Your task to perform on an android device: Open calendar and show me the fourth week of next month Image 0: 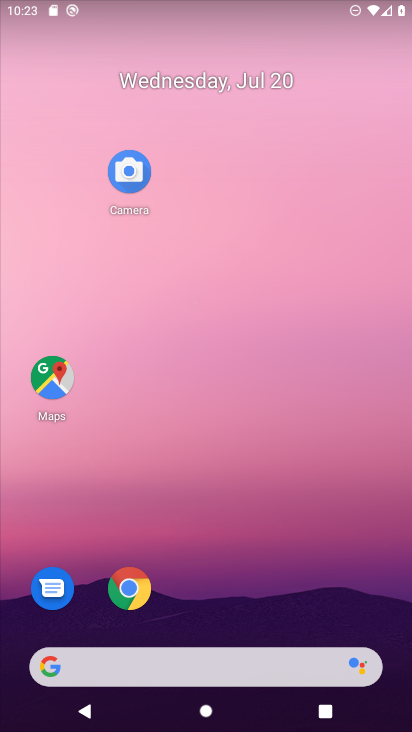
Step 0: press home button
Your task to perform on an android device: Open calendar and show me the fourth week of next month Image 1: 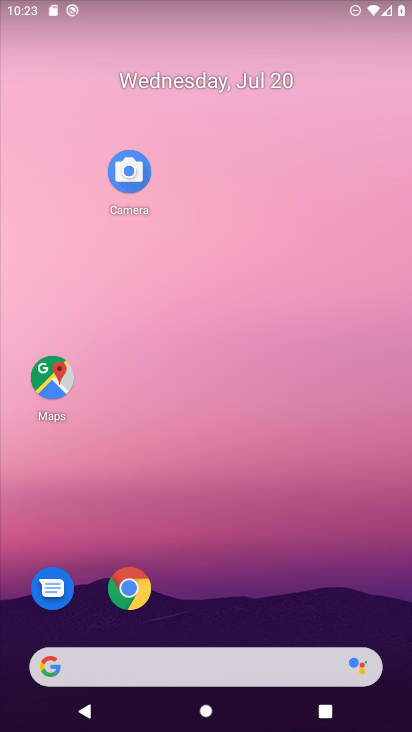
Step 1: drag from (303, 629) to (304, 155)
Your task to perform on an android device: Open calendar and show me the fourth week of next month Image 2: 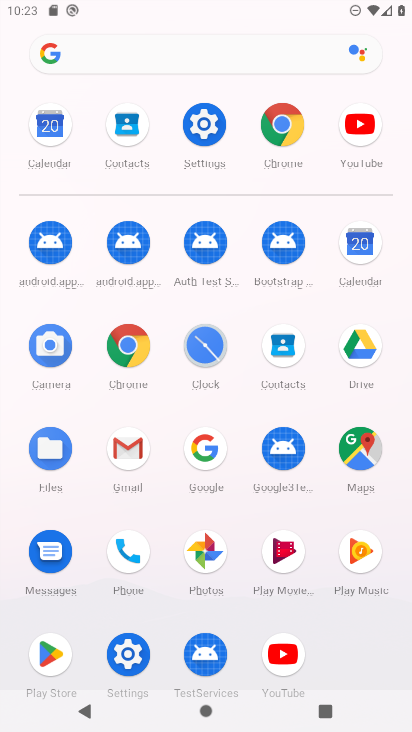
Step 2: click (347, 244)
Your task to perform on an android device: Open calendar and show me the fourth week of next month Image 3: 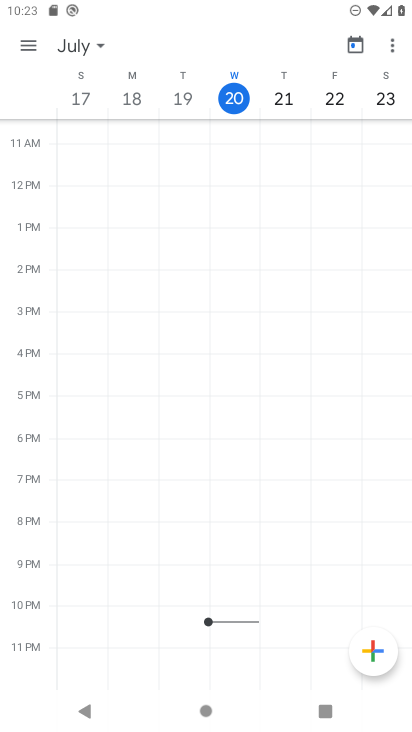
Step 3: click (27, 49)
Your task to perform on an android device: Open calendar and show me the fourth week of next month Image 4: 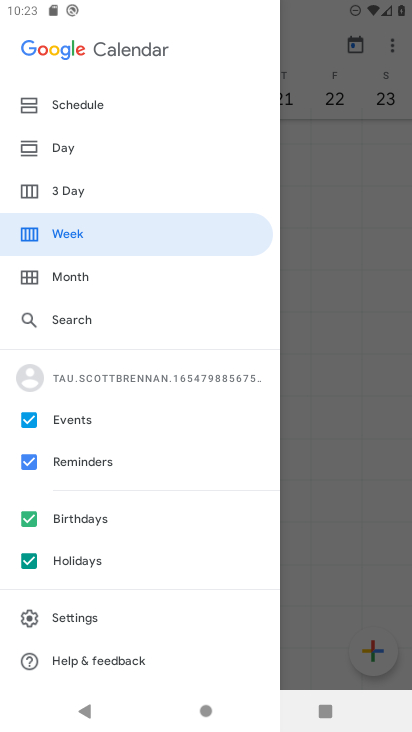
Step 4: click (84, 271)
Your task to perform on an android device: Open calendar and show me the fourth week of next month Image 5: 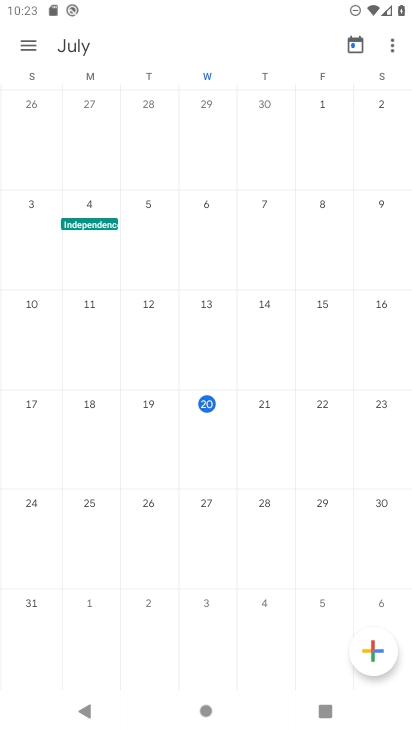
Step 5: task complete